Your task to perform on an android device: Open Chrome and go to settings Image 0: 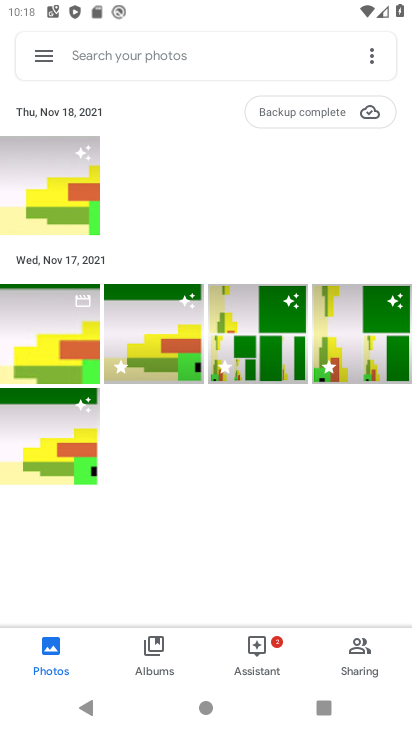
Step 0: press home button
Your task to perform on an android device: Open Chrome and go to settings Image 1: 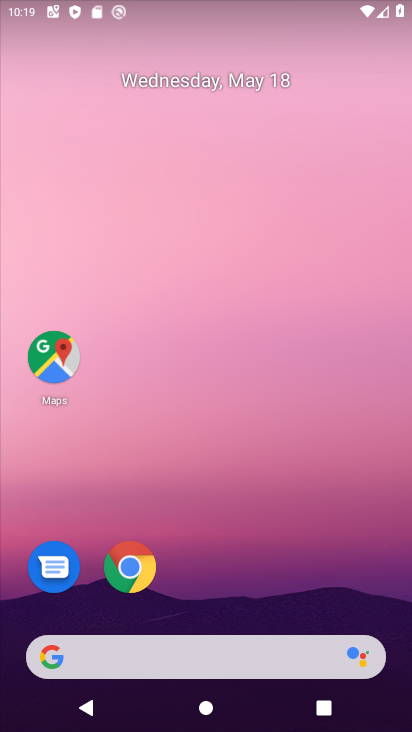
Step 1: drag from (224, 677) to (300, 0)
Your task to perform on an android device: Open Chrome and go to settings Image 2: 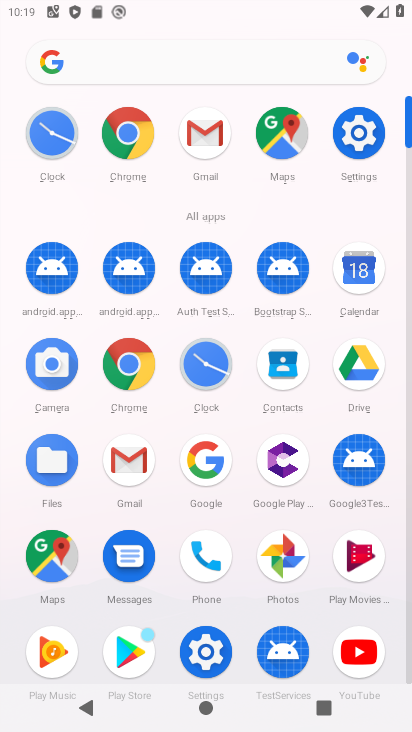
Step 2: click (139, 364)
Your task to perform on an android device: Open Chrome and go to settings Image 3: 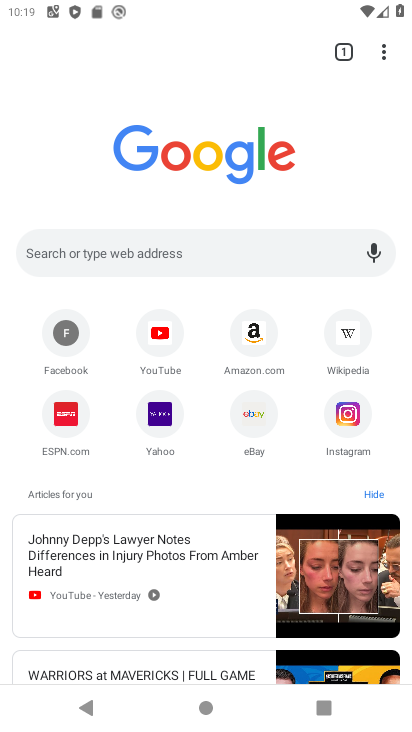
Step 3: click (372, 70)
Your task to perform on an android device: Open Chrome and go to settings Image 4: 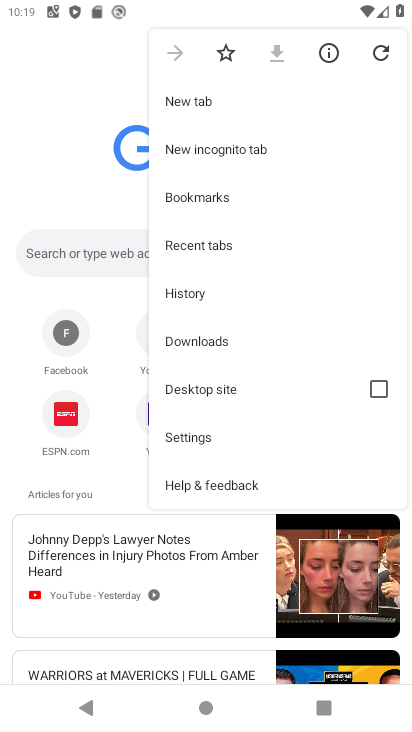
Step 4: click (214, 436)
Your task to perform on an android device: Open Chrome and go to settings Image 5: 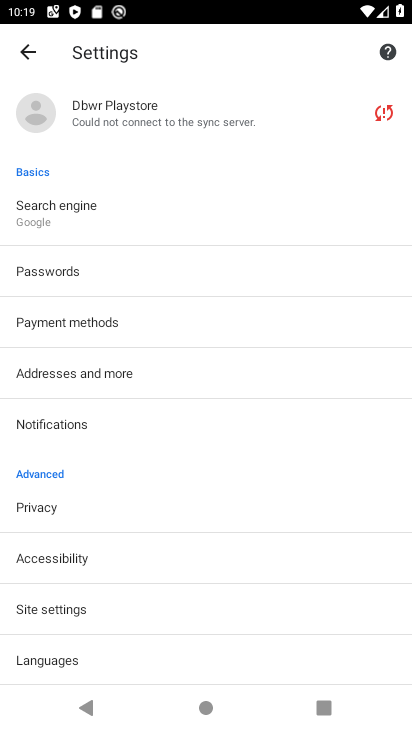
Step 5: task complete